Your task to perform on an android device: all mails in gmail Image 0: 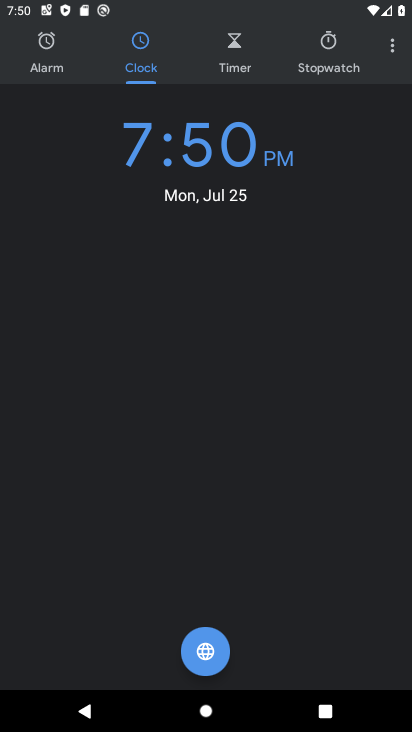
Step 0: press home button
Your task to perform on an android device: all mails in gmail Image 1: 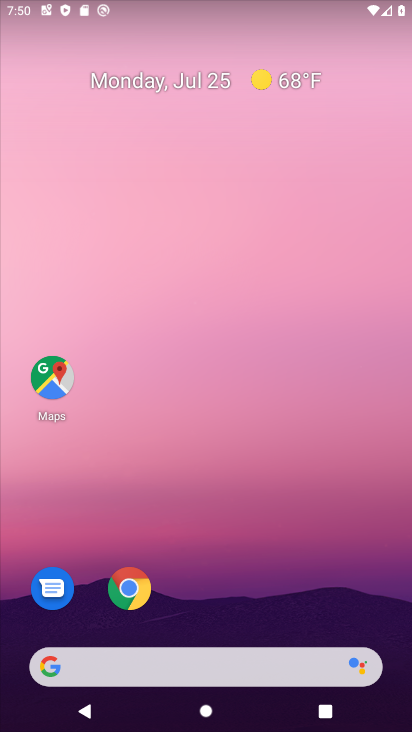
Step 1: drag from (356, 593) to (344, 85)
Your task to perform on an android device: all mails in gmail Image 2: 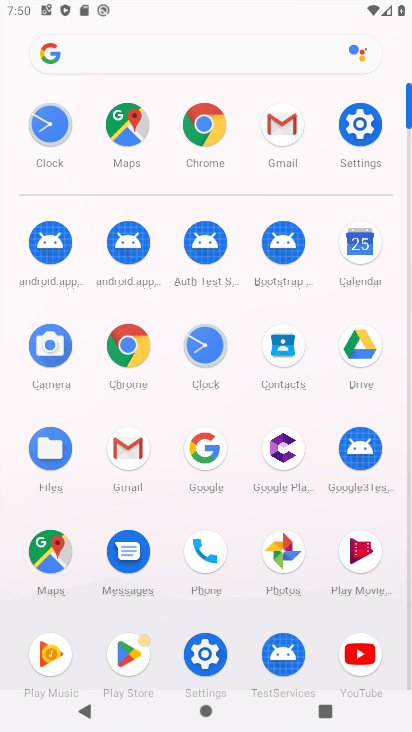
Step 2: click (283, 124)
Your task to perform on an android device: all mails in gmail Image 3: 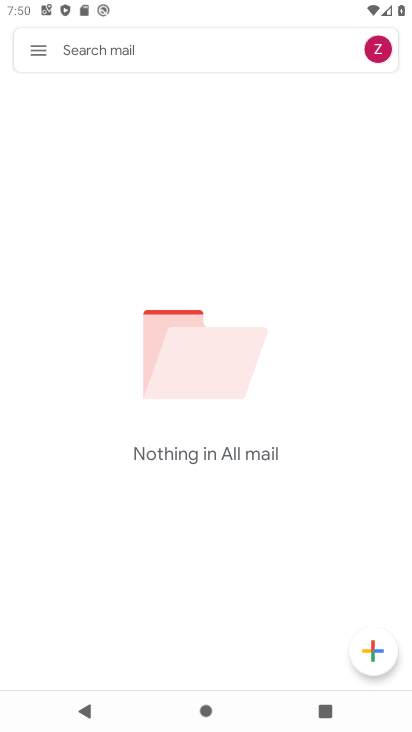
Step 3: click (36, 51)
Your task to perform on an android device: all mails in gmail Image 4: 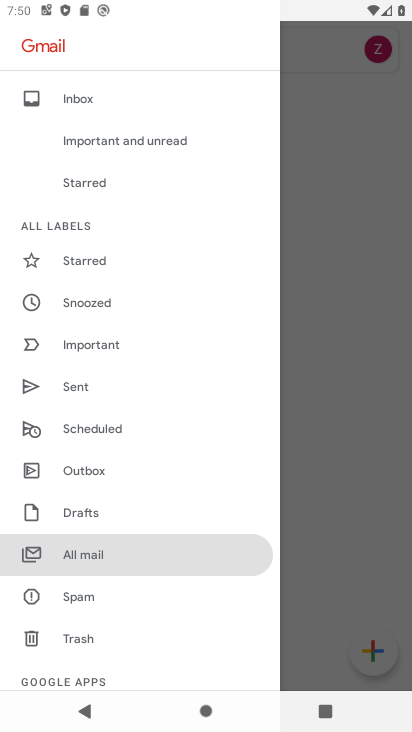
Step 4: drag from (190, 374) to (190, 276)
Your task to perform on an android device: all mails in gmail Image 5: 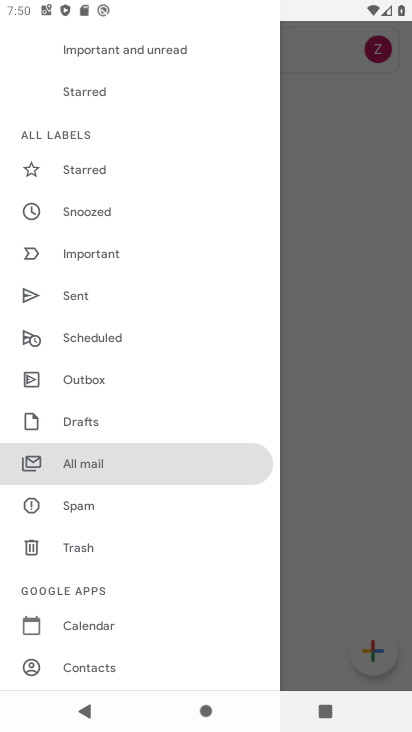
Step 5: click (142, 466)
Your task to perform on an android device: all mails in gmail Image 6: 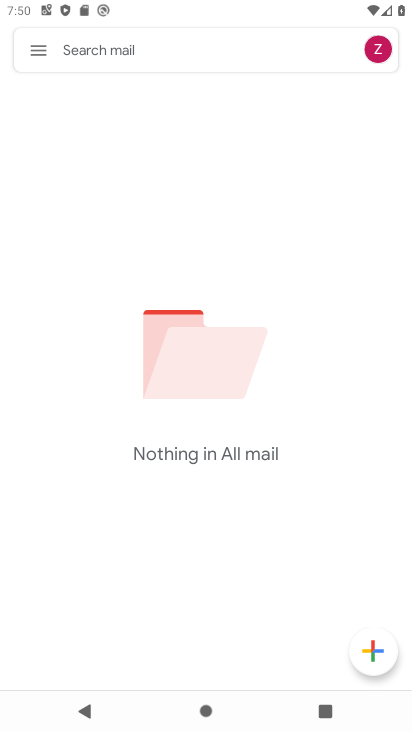
Step 6: task complete